Your task to perform on an android device: turn on sleep mode Image 0: 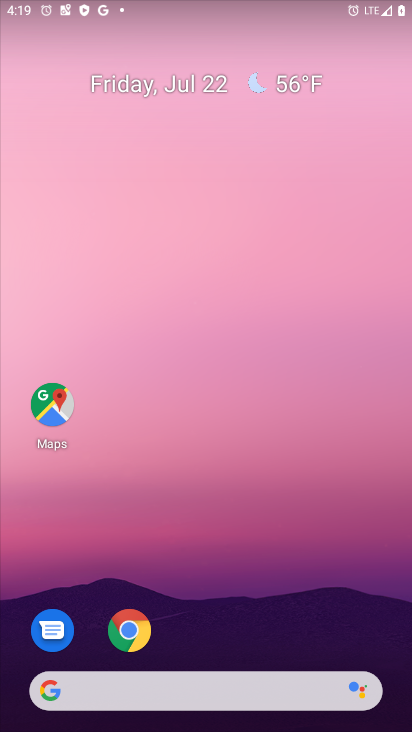
Step 0: drag from (190, 661) to (149, 197)
Your task to perform on an android device: turn on sleep mode Image 1: 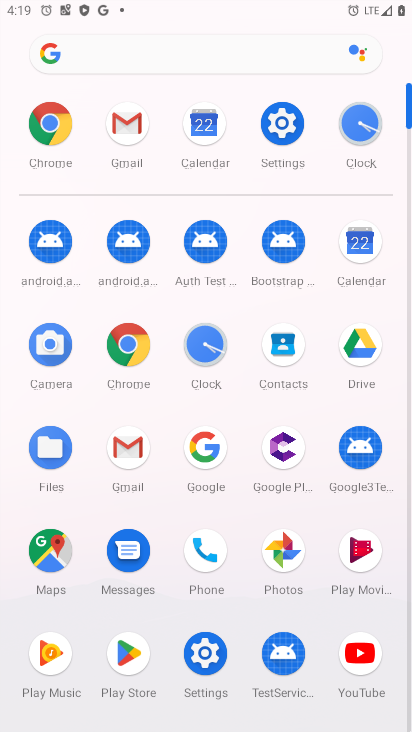
Step 1: click (214, 653)
Your task to perform on an android device: turn on sleep mode Image 2: 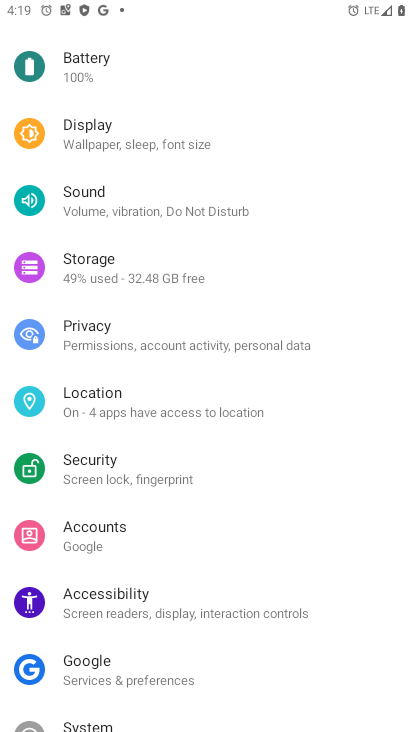
Step 2: click (90, 144)
Your task to perform on an android device: turn on sleep mode Image 3: 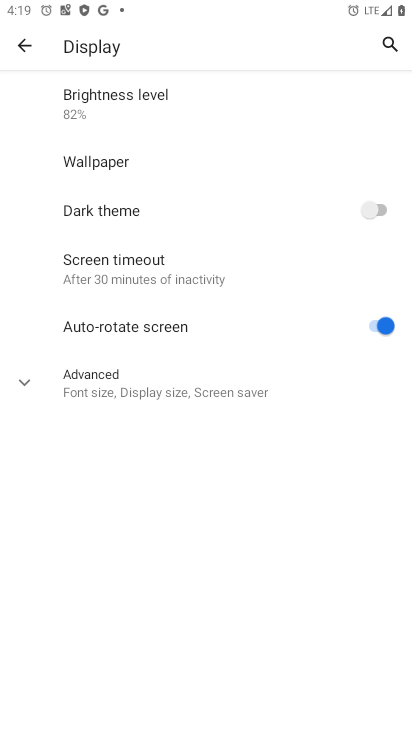
Step 3: click (119, 390)
Your task to perform on an android device: turn on sleep mode Image 4: 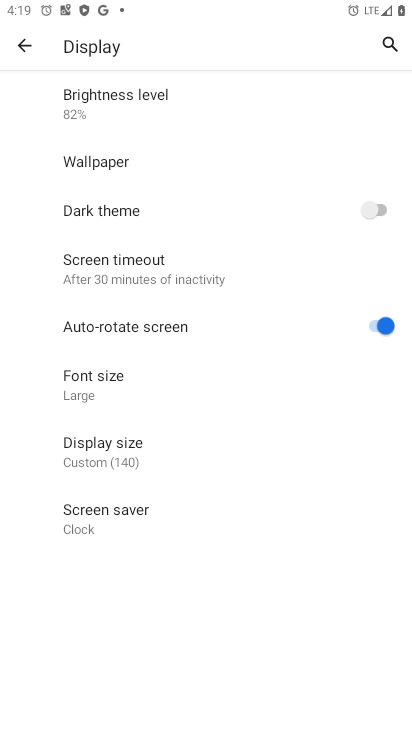
Step 4: task complete